Your task to perform on an android device: turn vacation reply on in the gmail app Image 0: 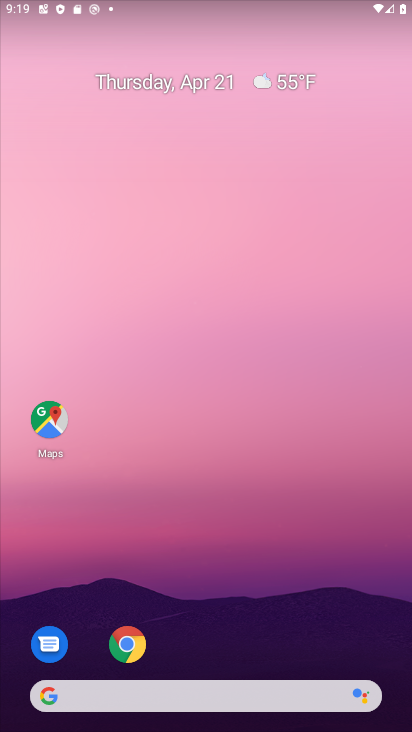
Step 0: drag from (268, 652) to (298, 201)
Your task to perform on an android device: turn vacation reply on in the gmail app Image 1: 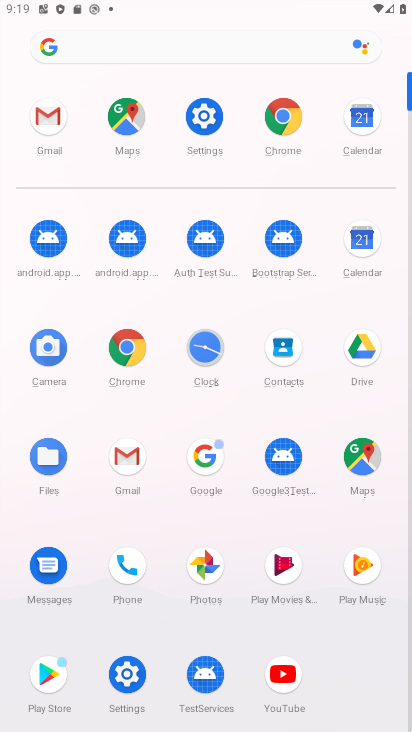
Step 1: click (127, 457)
Your task to perform on an android device: turn vacation reply on in the gmail app Image 2: 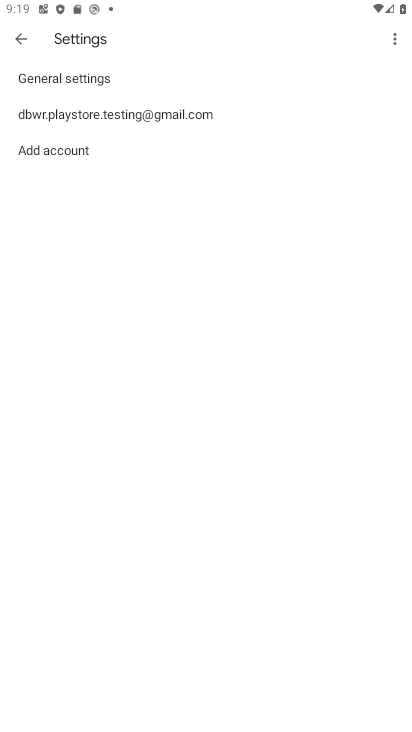
Step 2: click (129, 121)
Your task to perform on an android device: turn vacation reply on in the gmail app Image 3: 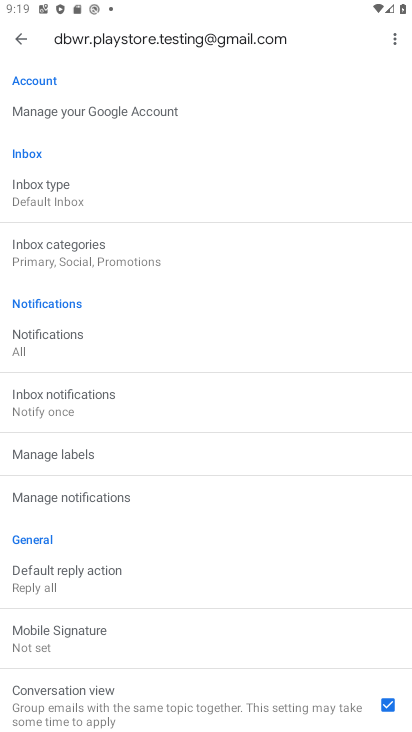
Step 3: drag from (214, 593) to (279, 225)
Your task to perform on an android device: turn vacation reply on in the gmail app Image 4: 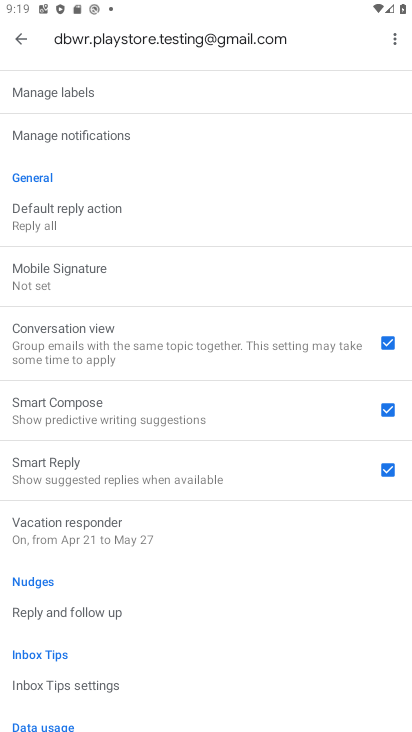
Step 4: click (134, 524)
Your task to perform on an android device: turn vacation reply on in the gmail app Image 5: 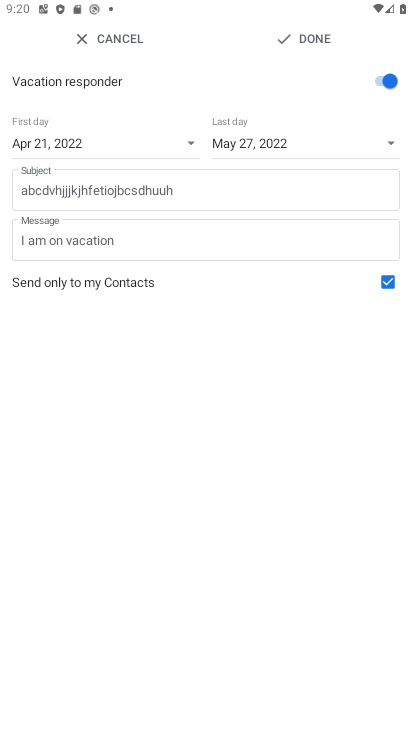
Step 5: task complete